Your task to perform on an android device: Open sound settings Image 0: 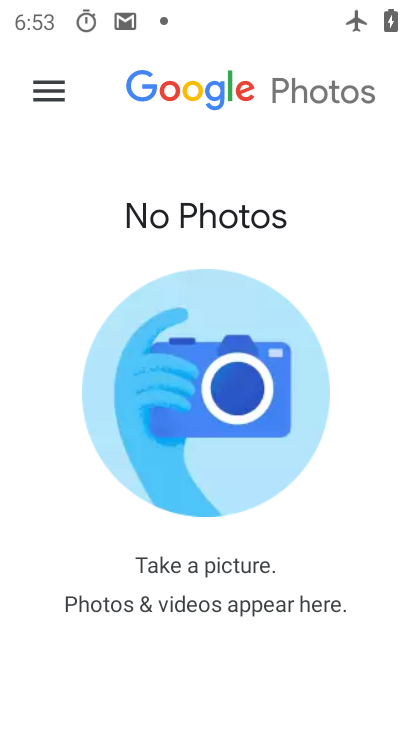
Step 0: press home button
Your task to perform on an android device: Open sound settings Image 1: 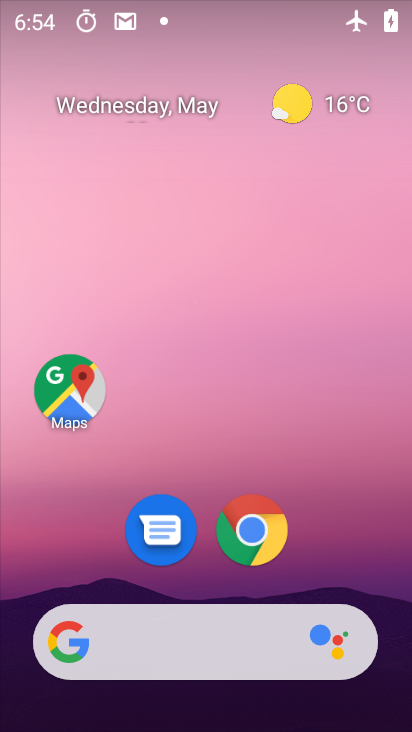
Step 1: drag from (213, 582) to (310, 71)
Your task to perform on an android device: Open sound settings Image 2: 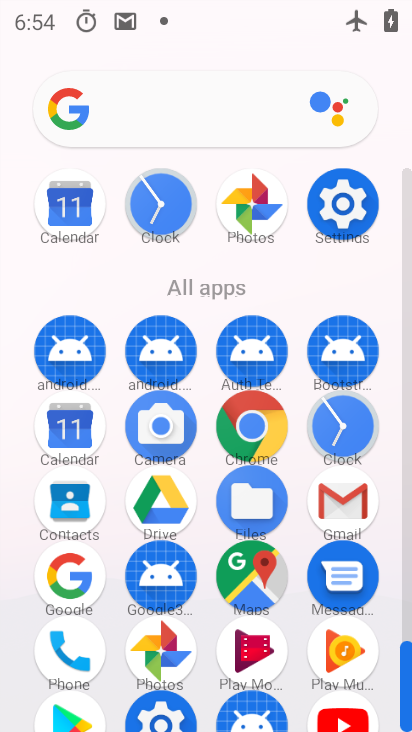
Step 2: click (337, 212)
Your task to perform on an android device: Open sound settings Image 3: 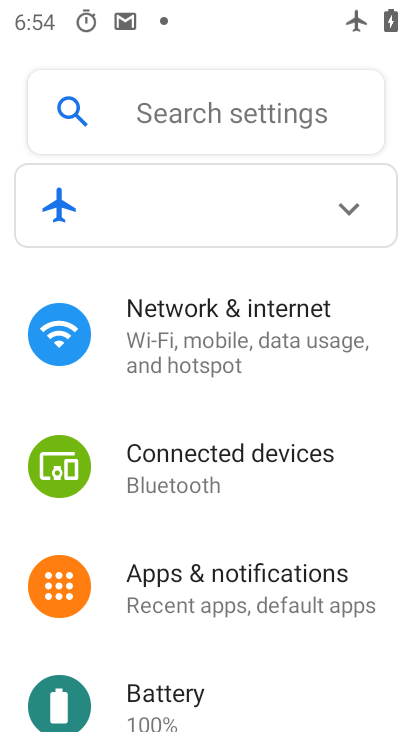
Step 3: drag from (246, 628) to (293, 355)
Your task to perform on an android device: Open sound settings Image 4: 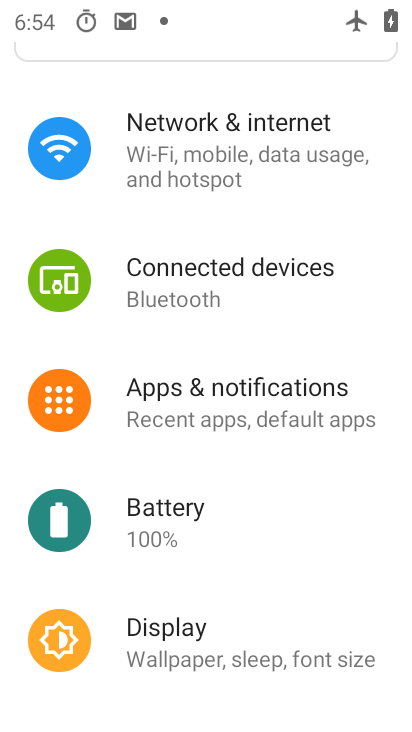
Step 4: drag from (225, 679) to (279, 437)
Your task to perform on an android device: Open sound settings Image 5: 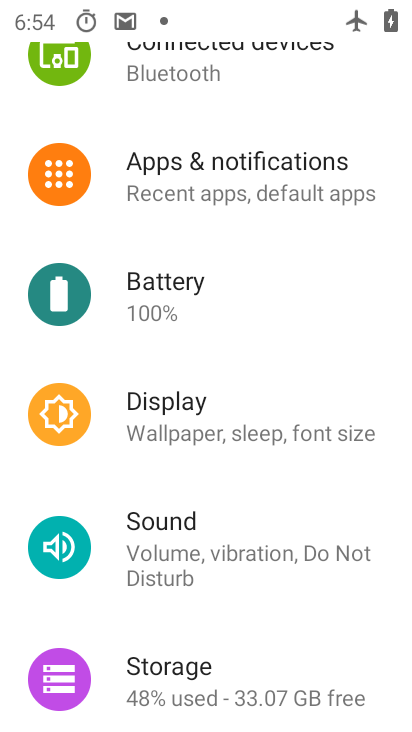
Step 5: click (185, 538)
Your task to perform on an android device: Open sound settings Image 6: 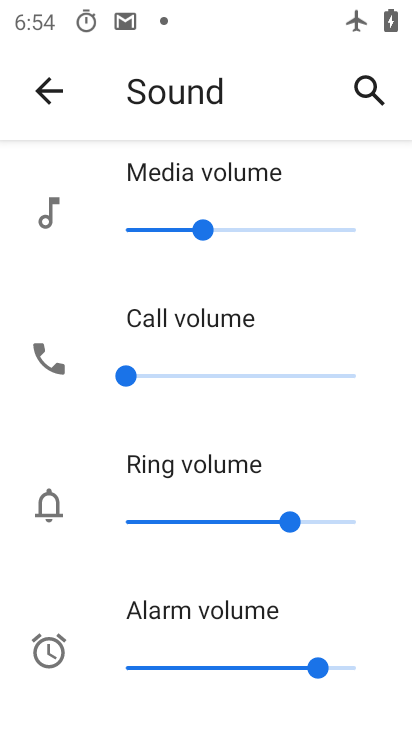
Step 6: task complete